Your task to perform on an android device: Go to Yahoo.com Image 0: 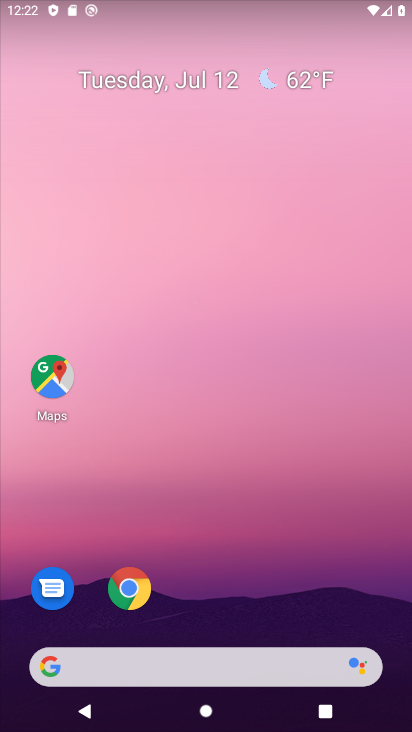
Step 0: click (247, 666)
Your task to perform on an android device: Go to Yahoo.com Image 1: 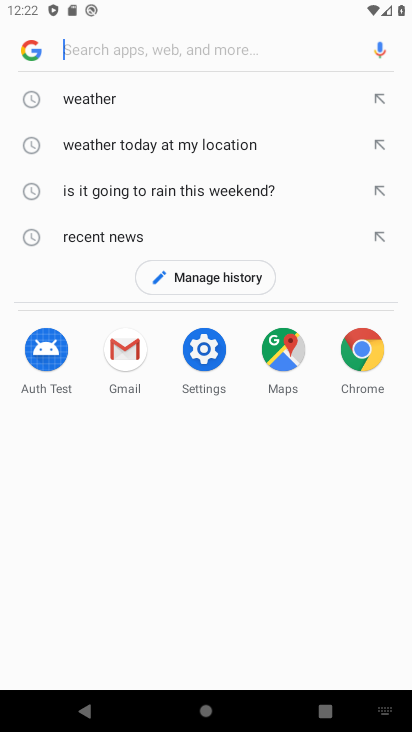
Step 1: type "yahoo.com"
Your task to perform on an android device: Go to Yahoo.com Image 2: 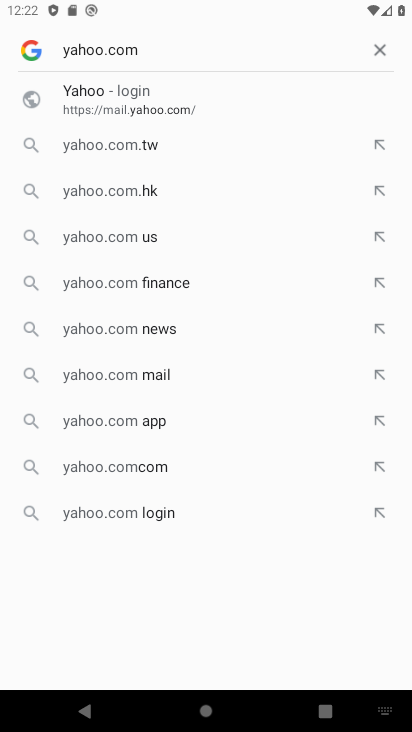
Step 2: click (156, 95)
Your task to perform on an android device: Go to Yahoo.com Image 3: 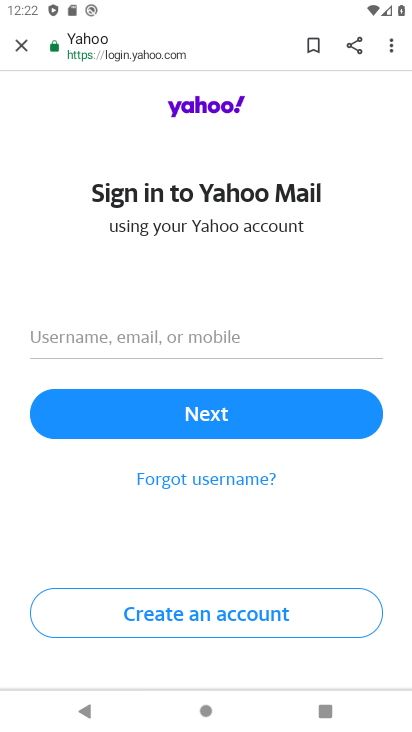
Step 3: task complete